Your task to perform on an android device: Open location settings Image 0: 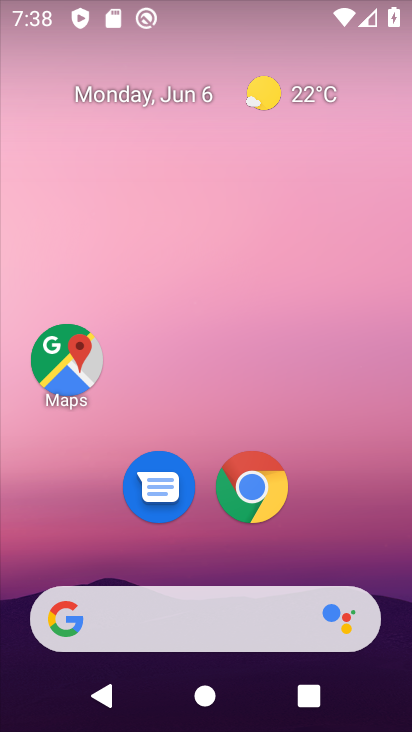
Step 0: drag from (358, 544) to (321, 172)
Your task to perform on an android device: Open location settings Image 1: 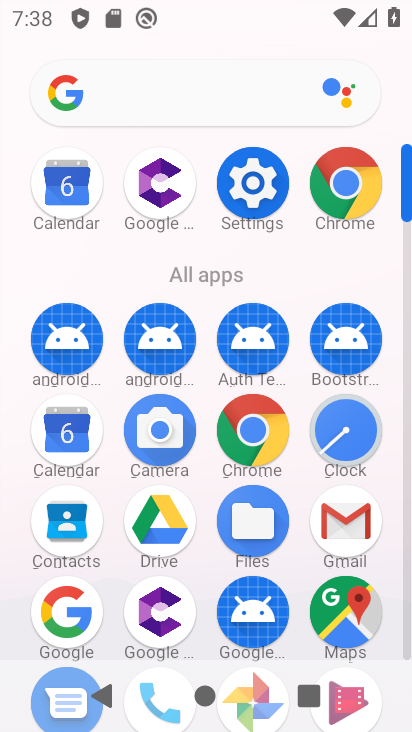
Step 1: click (246, 193)
Your task to perform on an android device: Open location settings Image 2: 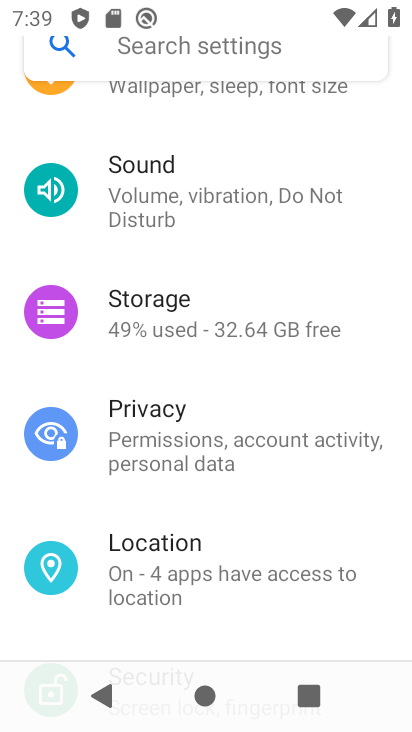
Step 2: click (170, 599)
Your task to perform on an android device: Open location settings Image 3: 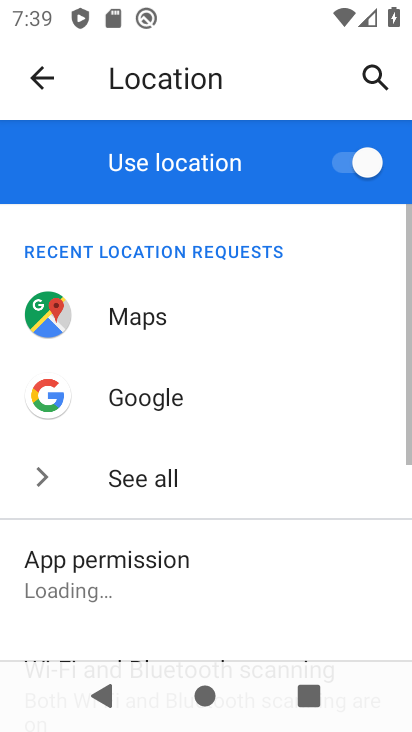
Step 3: drag from (172, 595) to (274, 333)
Your task to perform on an android device: Open location settings Image 4: 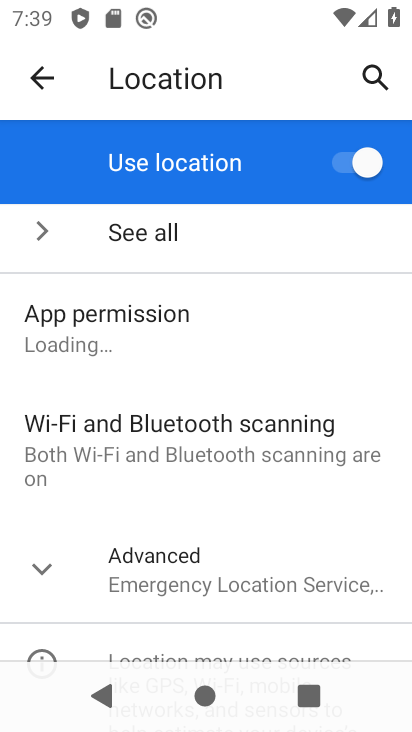
Step 4: click (203, 566)
Your task to perform on an android device: Open location settings Image 5: 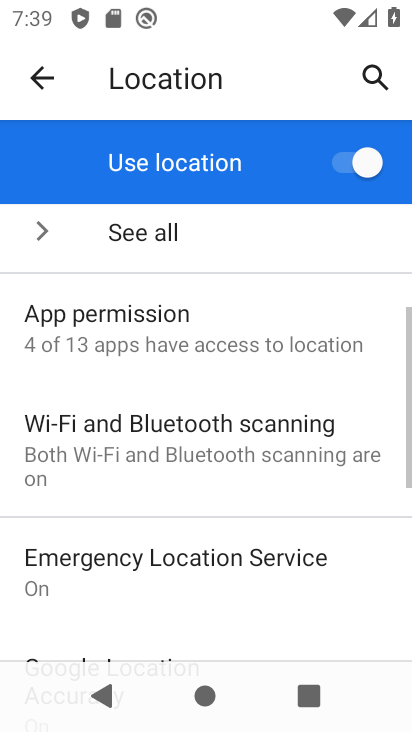
Step 5: task complete